Your task to perform on an android device: toggle translation in the chrome app Image 0: 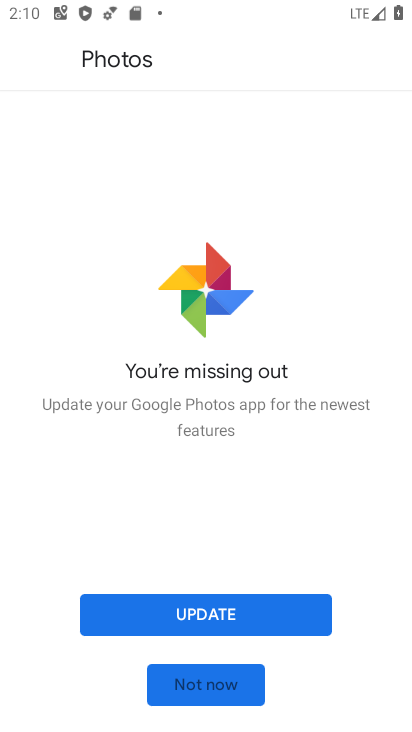
Step 0: press back button
Your task to perform on an android device: toggle translation in the chrome app Image 1: 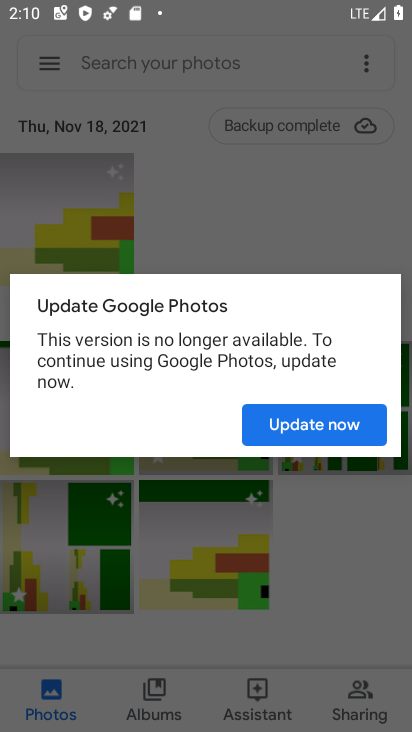
Step 1: press back button
Your task to perform on an android device: toggle translation in the chrome app Image 2: 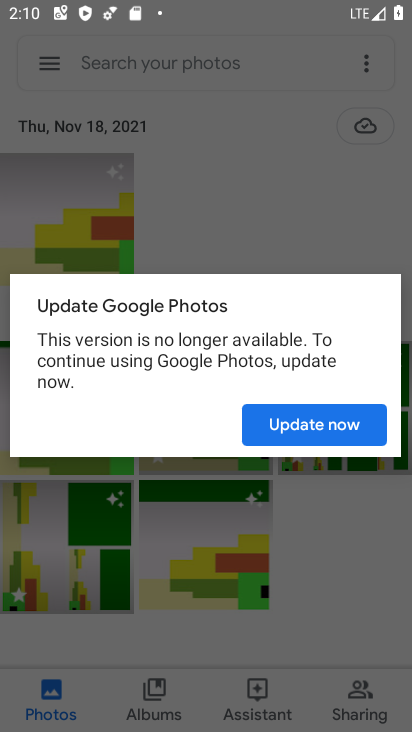
Step 2: press home button
Your task to perform on an android device: toggle translation in the chrome app Image 3: 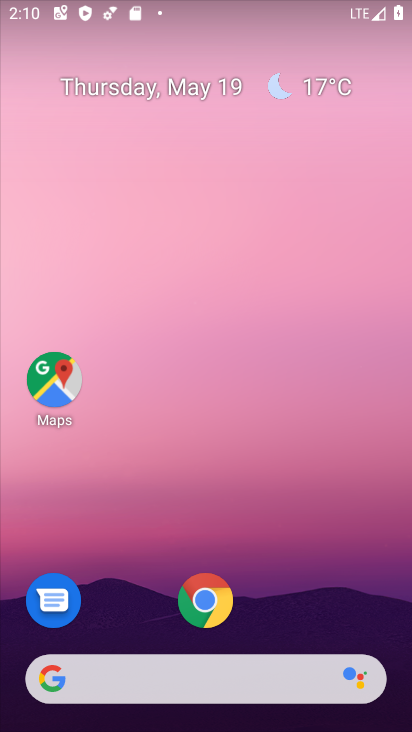
Step 3: click (225, 599)
Your task to perform on an android device: toggle translation in the chrome app Image 4: 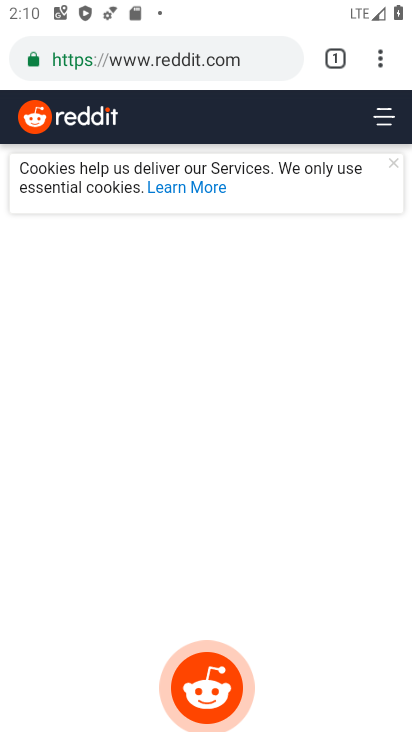
Step 4: click (385, 68)
Your task to perform on an android device: toggle translation in the chrome app Image 5: 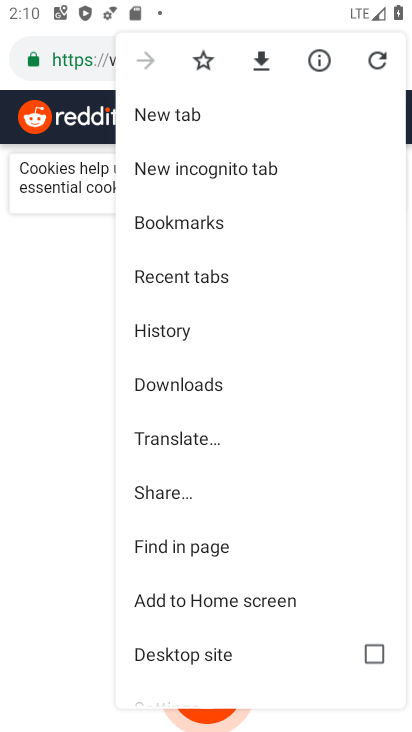
Step 5: drag from (211, 589) to (202, 310)
Your task to perform on an android device: toggle translation in the chrome app Image 6: 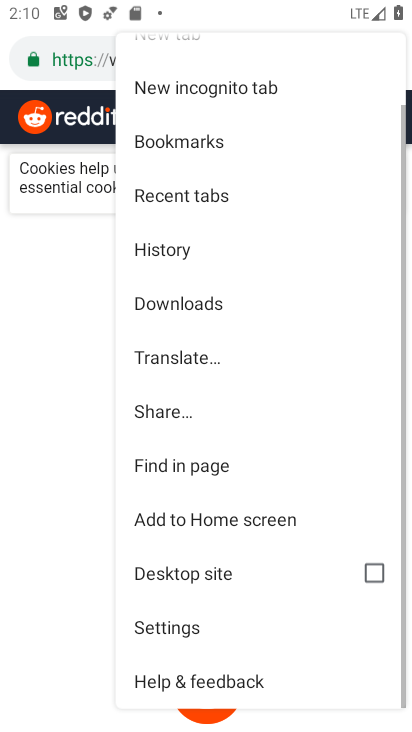
Step 6: click (173, 617)
Your task to perform on an android device: toggle translation in the chrome app Image 7: 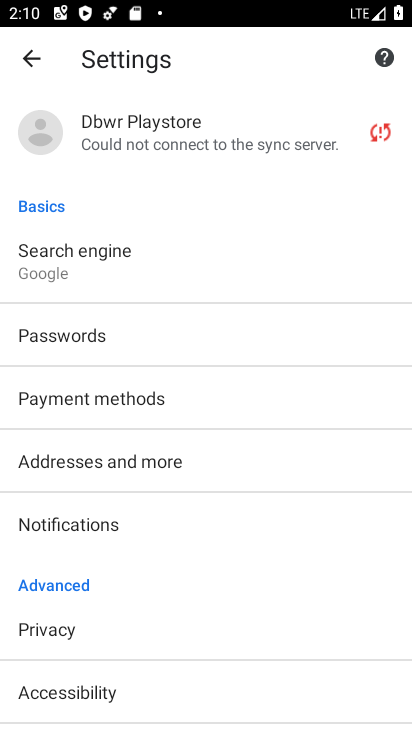
Step 7: drag from (149, 551) to (142, 282)
Your task to perform on an android device: toggle translation in the chrome app Image 8: 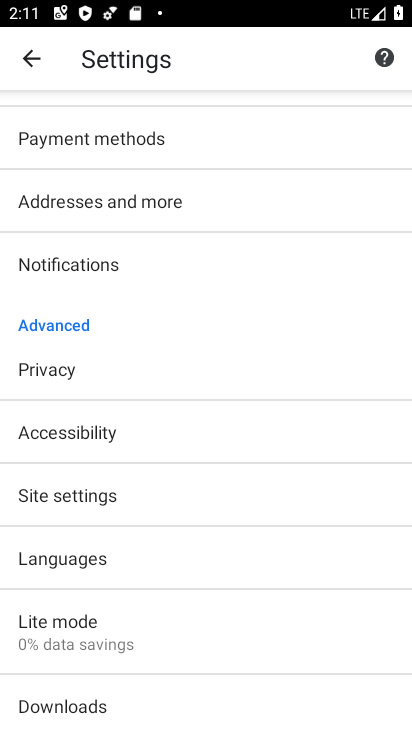
Step 8: click (112, 556)
Your task to perform on an android device: toggle translation in the chrome app Image 9: 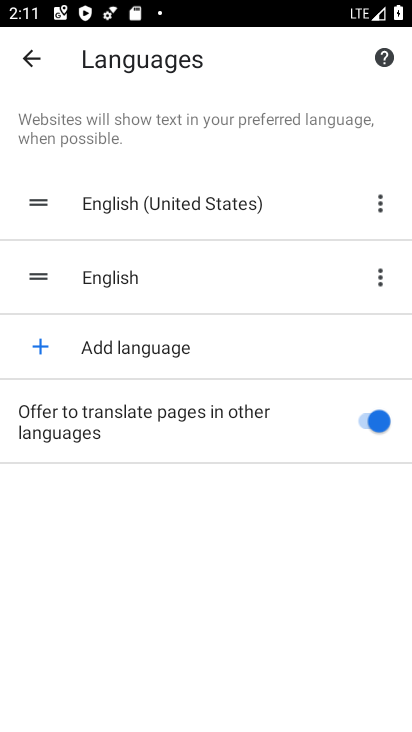
Step 9: click (370, 413)
Your task to perform on an android device: toggle translation in the chrome app Image 10: 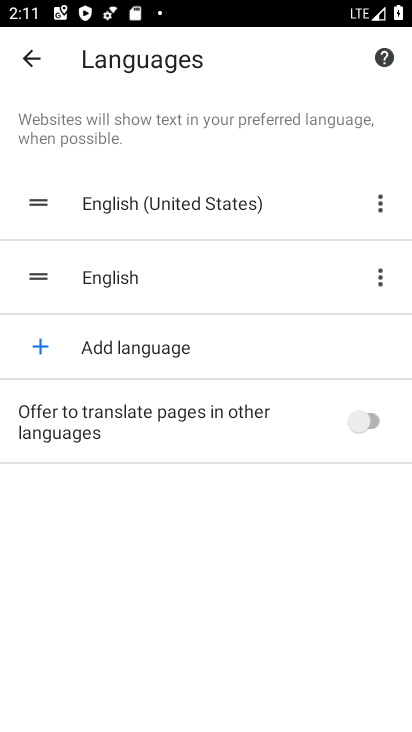
Step 10: task complete